Your task to perform on an android device: Open notification settings Image 0: 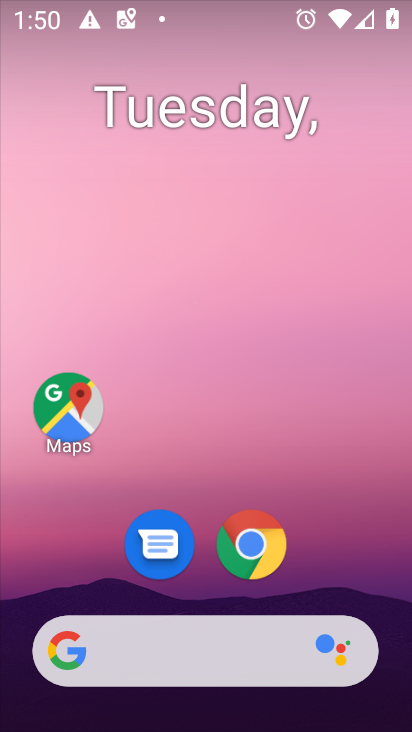
Step 0: drag from (323, 587) to (285, 121)
Your task to perform on an android device: Open notification settings Image 1: 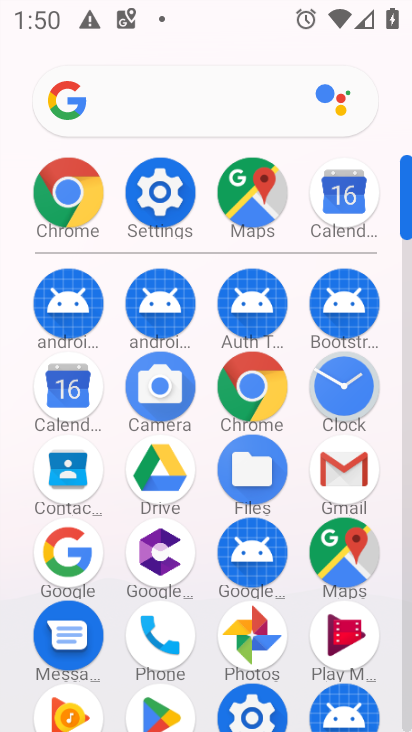
Step 1: click (261, 705)
Your task to perform on an android device: Open notification settings Image 2: 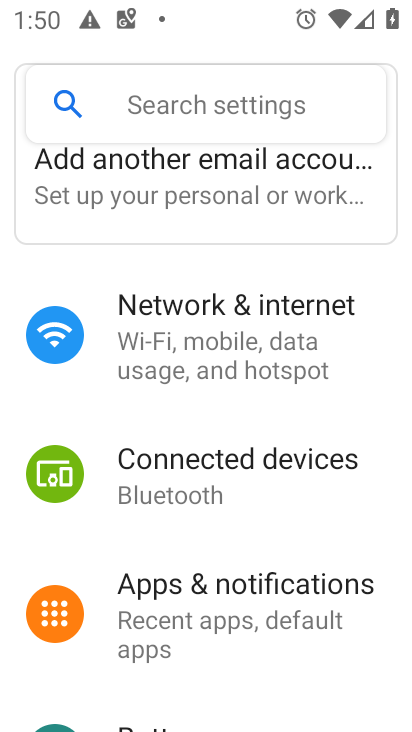
Step 2: click (230, 589)
Your task to perform on an android device: Open notification settings Image 3: 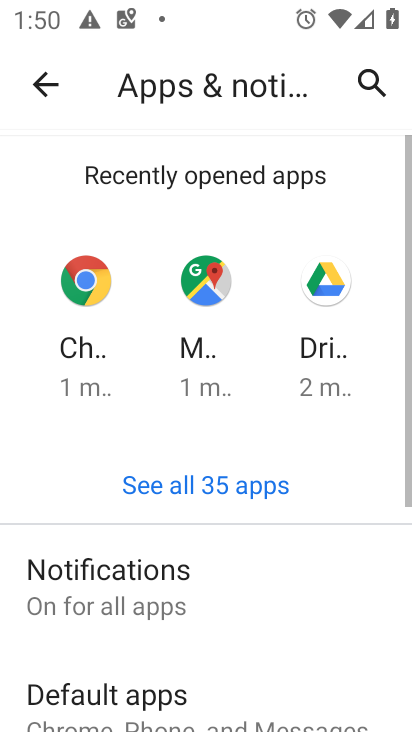
Step 3: click (150, 562)
Your task to perform on an android device: Open notification settings Image 4: 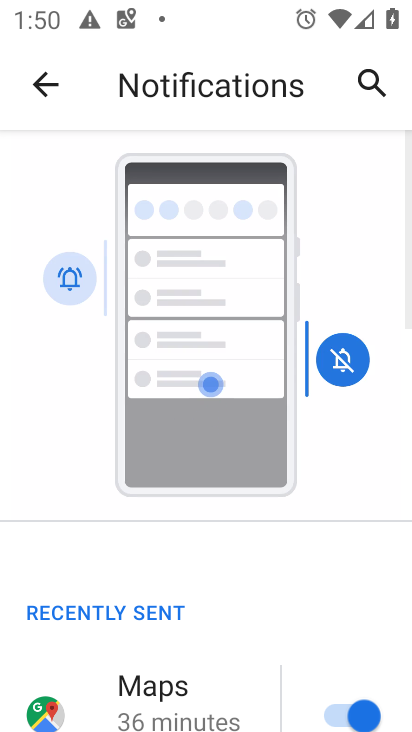
Step 4: task complete